Your task to perform on an android device: set the timer Image 0: 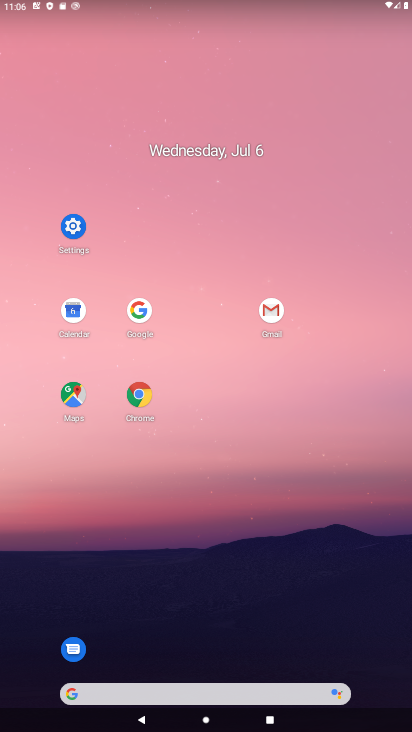
Step 0: drag from (182, 569) to (214, 92)
Your task to perform on an android device: set the timer Image 1: 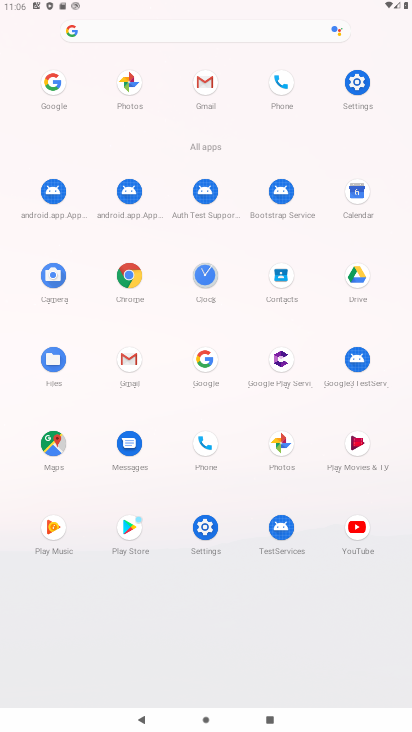
Step 1: drag from (204, 275) to (152, 180)
Your task to perform on an android device: set the timer Image 2: 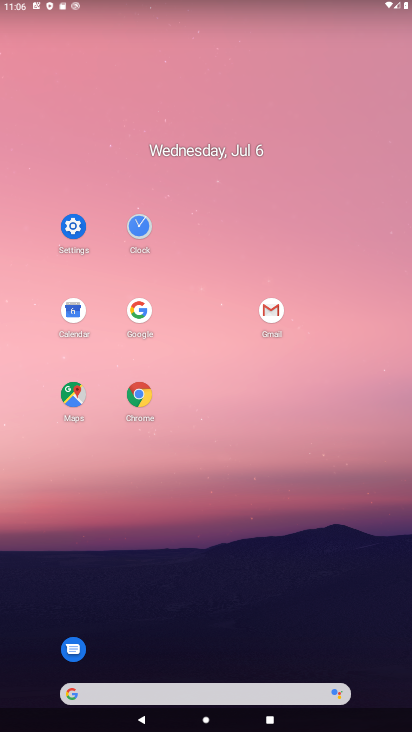
Step 2: click (149, 227)
Your task to perform on an android device: set the timer Image 3: 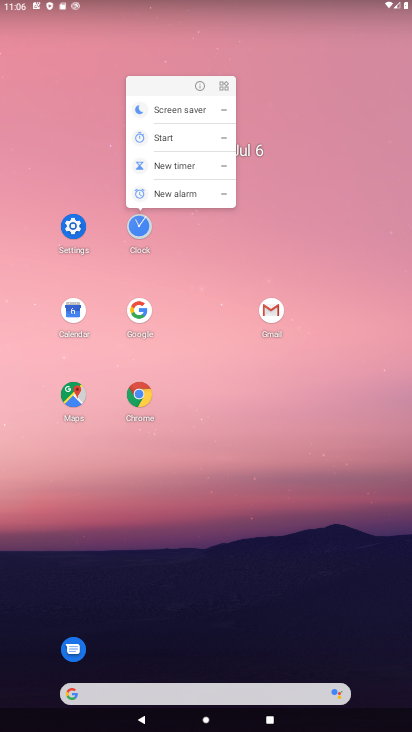
Step 3: click (137, 225)
Your task to perform on an android device: set the timer Image 4: 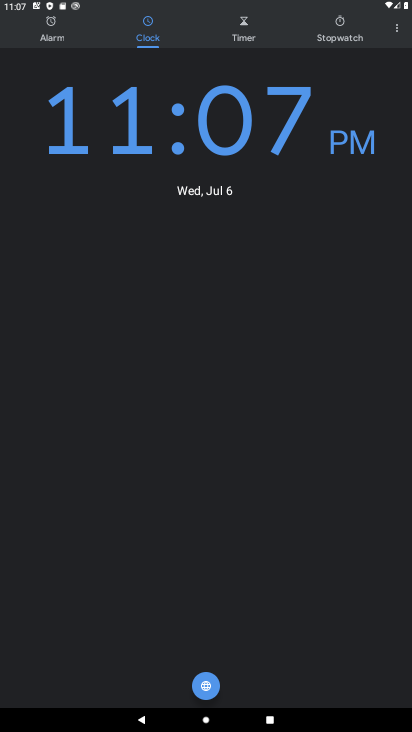
Step 4: click (246, 20)
Your task to perform on an android device: set the timer Image 5: 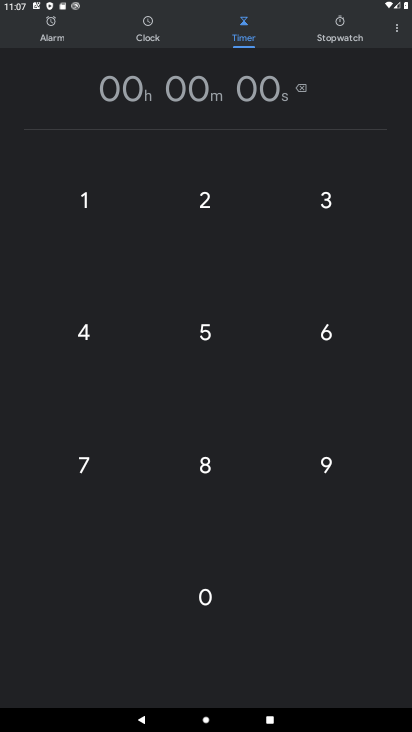
Step 5: click (181, 103)
Your task to perform on an android device: set the timer Image 6: 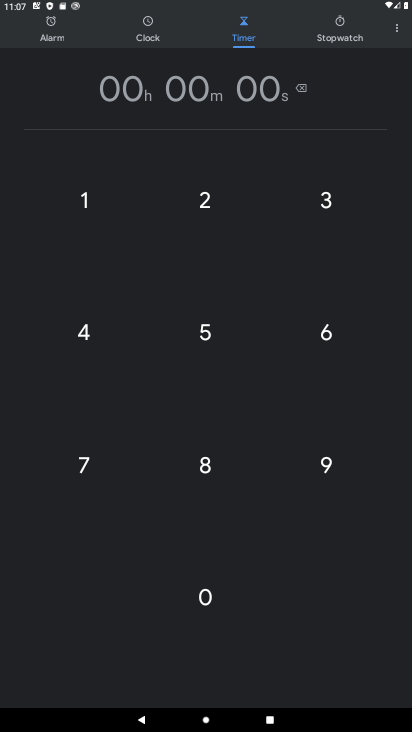
Step 6: click (185, 233)
Your task to perform on an android device: set the timer Image 7: 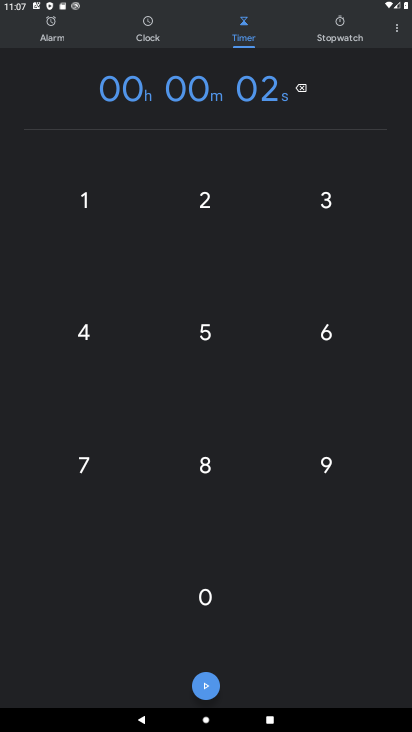
Step 7: click (199, 215)
Your task to perform on an android device: set the timer Image 8: 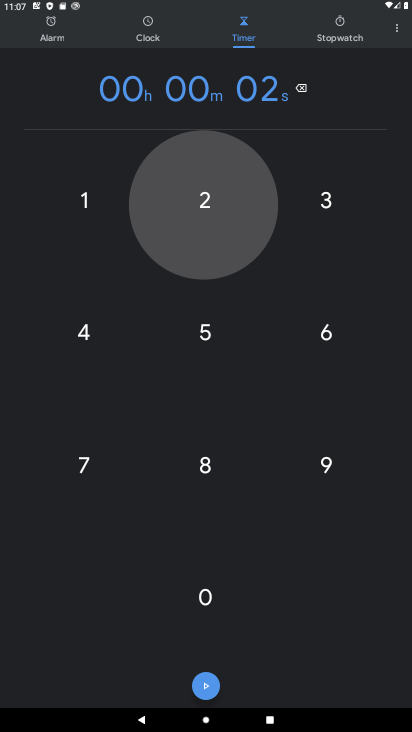
Step 8: click (199, 215)
Your task to perform on an android device: set the timer Image 9: 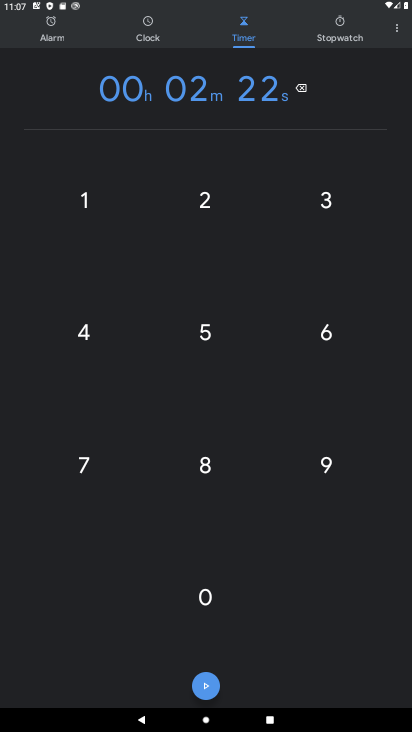
Step 9: click (207, 684)
Your task to perform on an android device: set the timer Image 10: 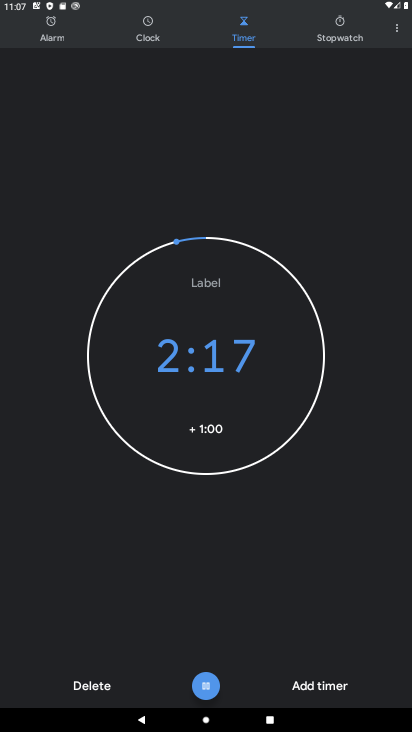
Step 10: task complete